Your task to perform on an android device: turn off location Image 0: 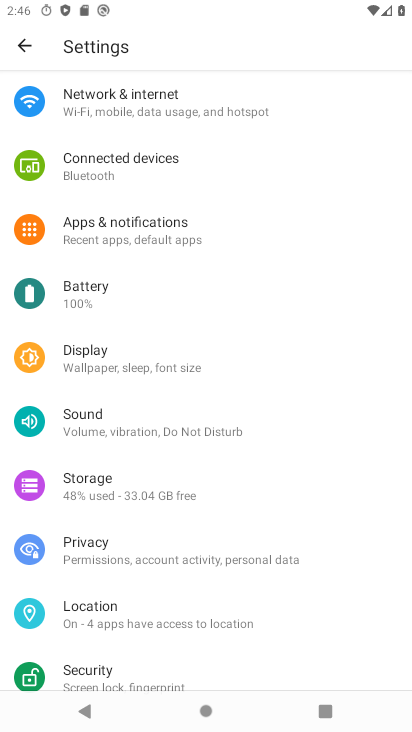
Step 0: click (104, 610)
Your task to perform on an android device: turn off location Image 1: 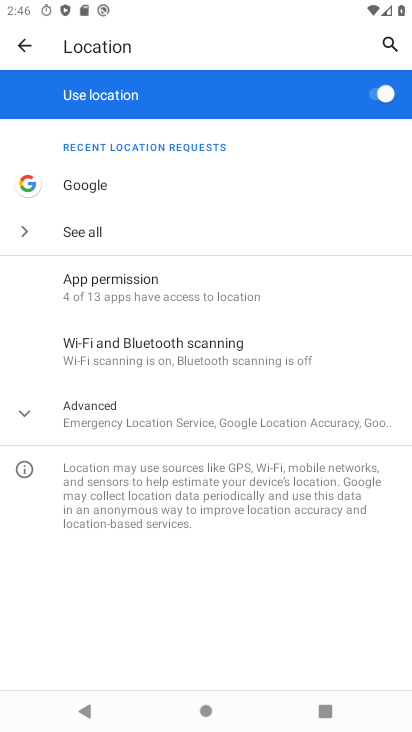
Step 1: click (382, 100)
Your task to perform on an android device: turn off location Image 2: 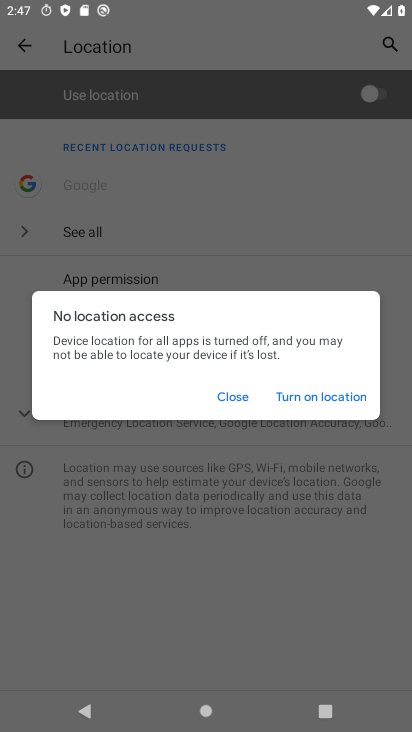
Step 2: click (246, 396)
Your task to perform on an android device: turn off location Image 3: 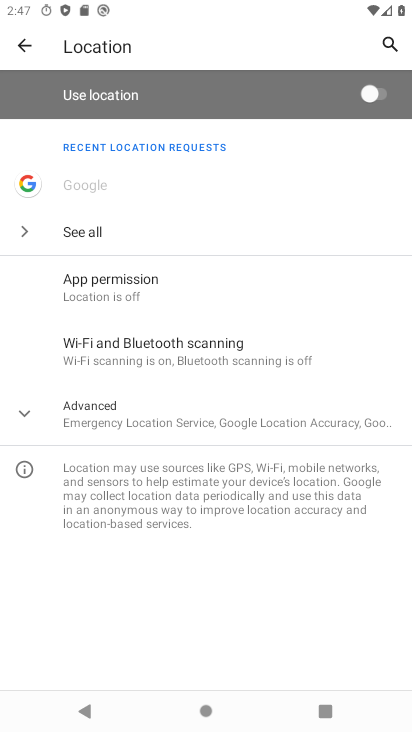
Step 3: task complete